Your task to perform on an android device: Play the last video I watched on Youtube Image 0: 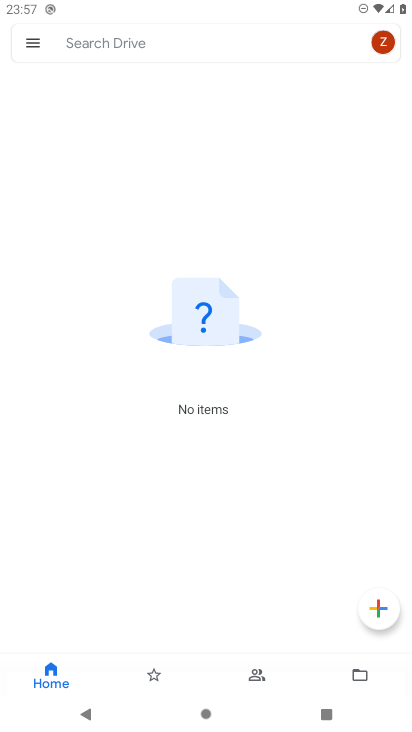
Step 0: press home button
Your task to perform on an android device: Play the last video I watched on Youtube Image 1: 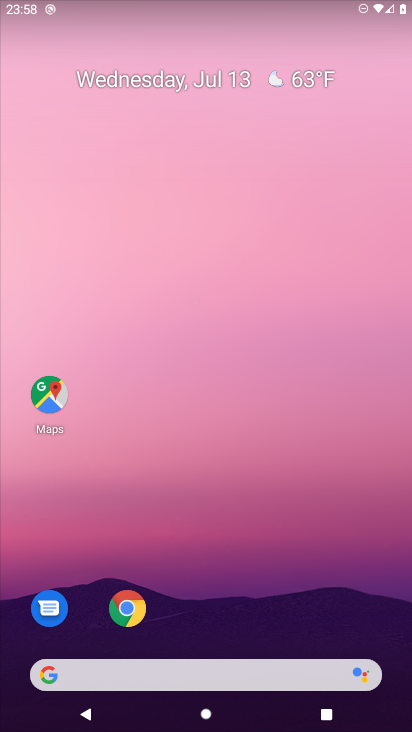
Step 1: drag from (247, 598) to (218, 177)
Your task to perform on an android device: Play the last video I watched on Youtube Image 2: 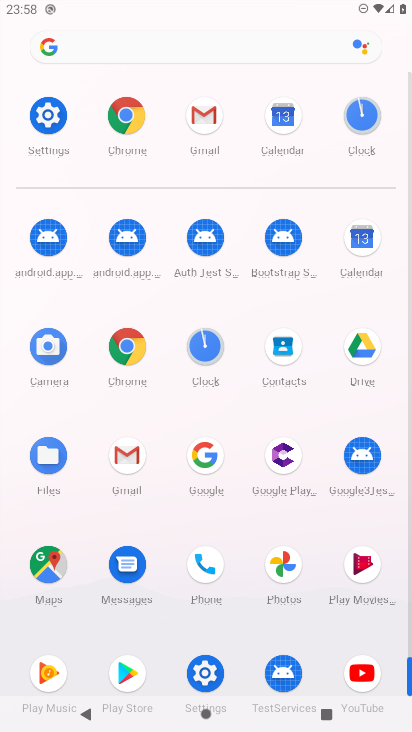
Step 2: click (369, 679)
Your task to perform on an android device: Play the last video I watched on Youtube Image 3: 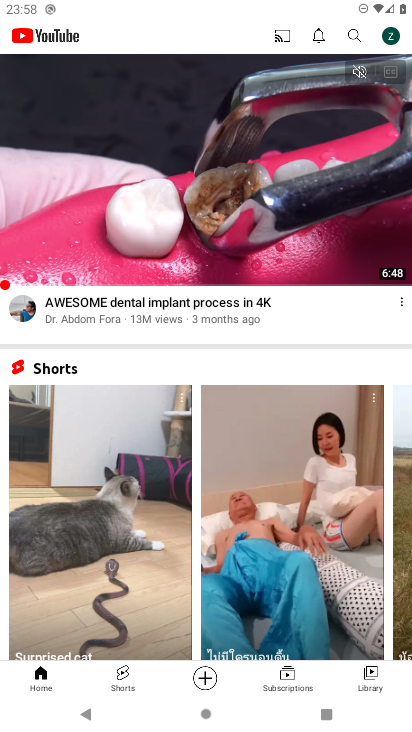
Step 3: click (368, 677)
Your task to perform on an android device: Play the last video I watched on Youtube Image 4: 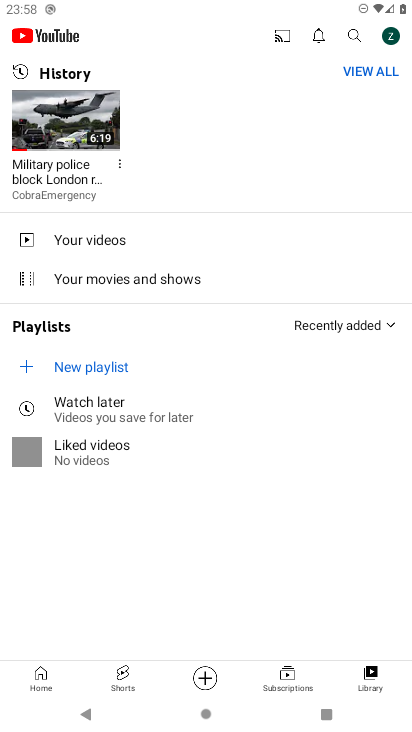
Step 4: click (73, 117)
Your task to perform on an android device: Play the last video I watched on Youtube Image 5: 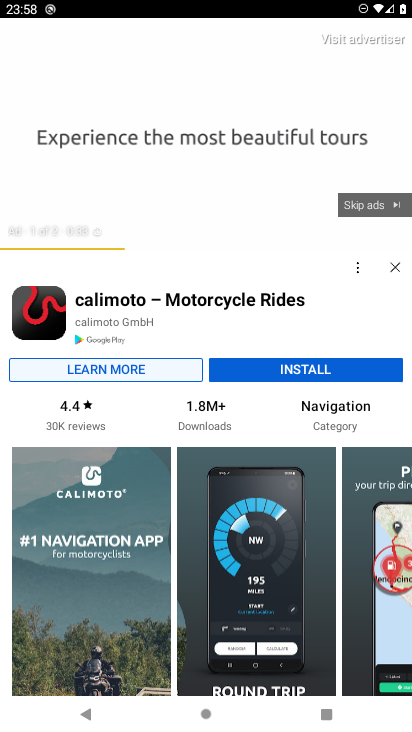
Step 5: click (363, 212)
Your task to perform on an android device: Play the last video I watched on Youtube Image 6: 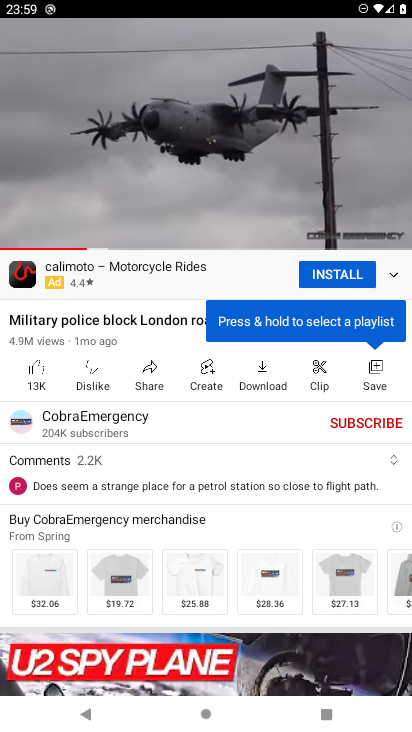
Step 6: task complete